Your task to perform on an android device: turn on showing notifications on the lock screen Image 0: 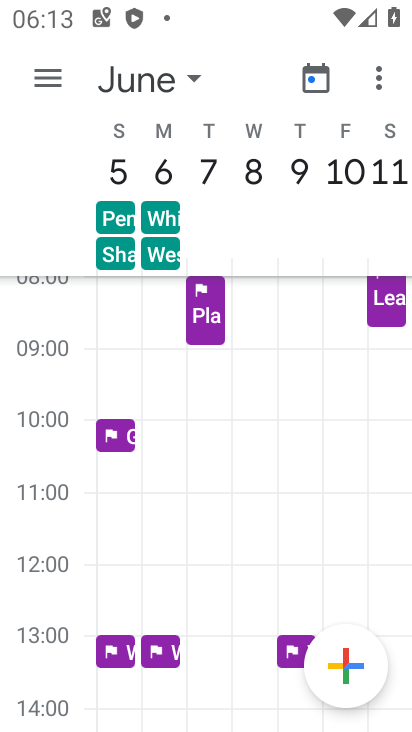
Step 0: press home button
Your task to perform on an android device: turn on showing notifications on the lock screen Image 1: 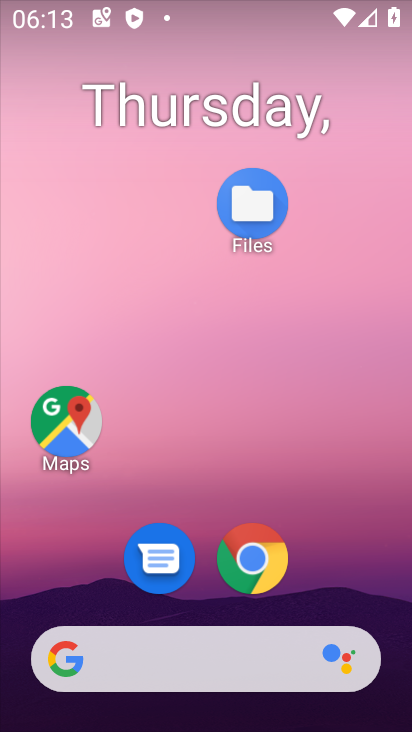
Step 1: drag from (301, 593) to (371, 108)
Your task to perform on an android device: turn on showing notifications on the lock screen Image 2: 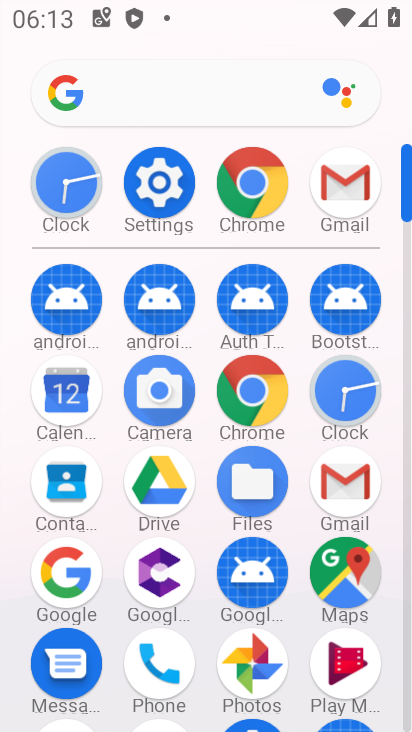
Step 2: click (146, 203)
Your task to perform on an android device: turn on showing notifications on the lock screen Image 3: 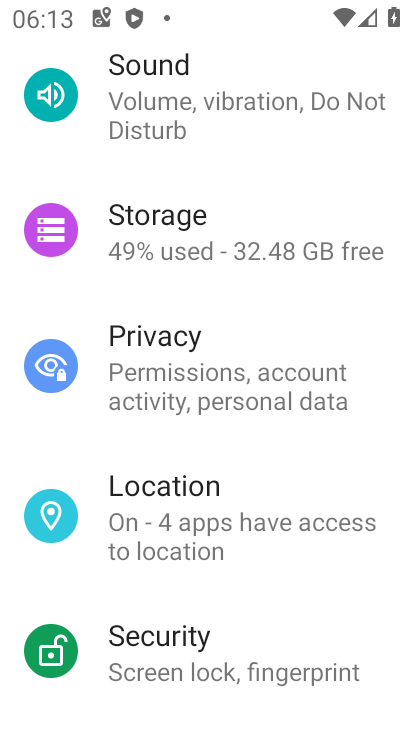
Step 3: drag from (244, 596) to (264, 294)
Your task to perform on an android device: turn on showing notifications on the lock screen Image 4: 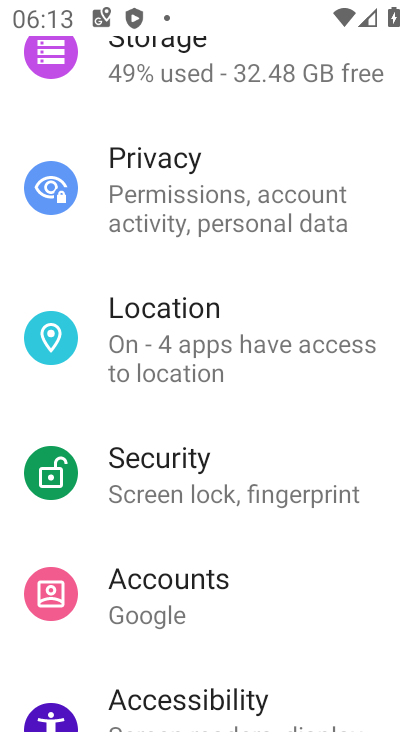
Step 4: drag from (239, 450) to (246, 255)
Your task to perform on an android device: turn on showing notifications on the lock screen Image 5: 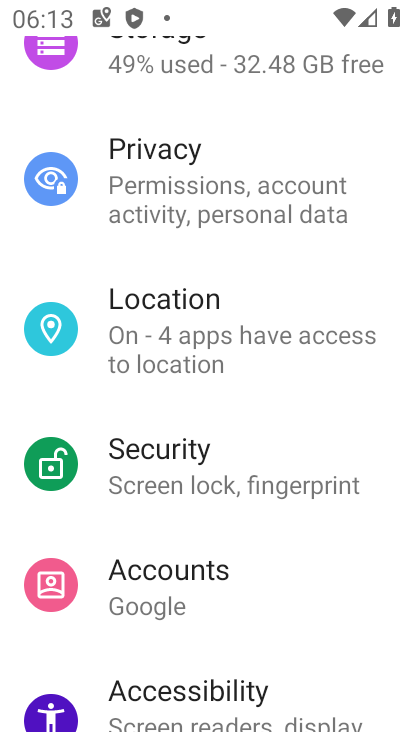
Step 5: drag from (305, 259) to (305, 715)
Your task to perform on an android device: turn on showing notifications on the lock screen Image 6: 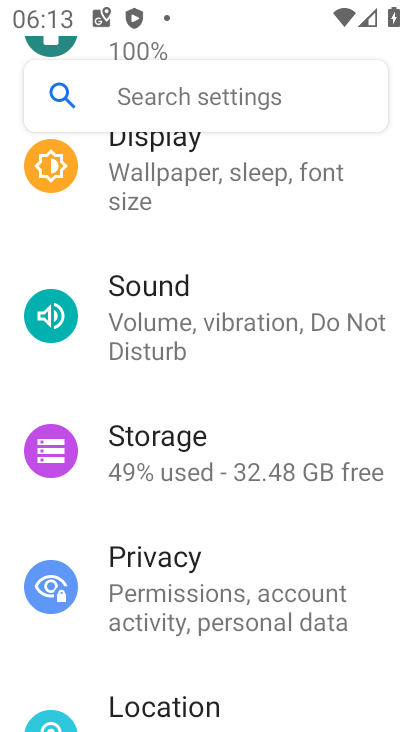
Step 6: drag from (280, 393) to (251, 693)
Your task to perform on an android device: turn on showing notifications on the lock screen Image 7: 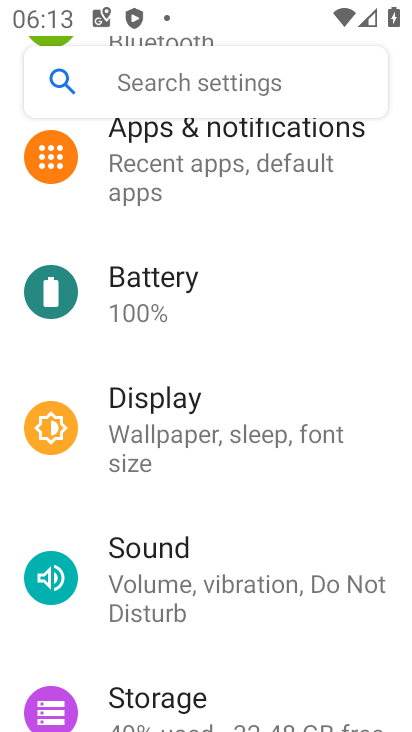
Step 7: drag from (281, 314) to (281, 647)
Your task to perform on an android device: turn on showing notifications on the lock screen Image 8: 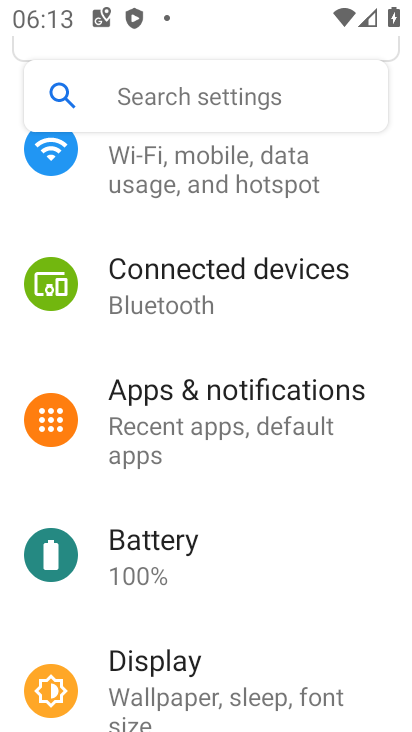
Step 8: click (200, 433)
Your task to perform on an android device: turn on showing notifications on the lock screen Image 9: 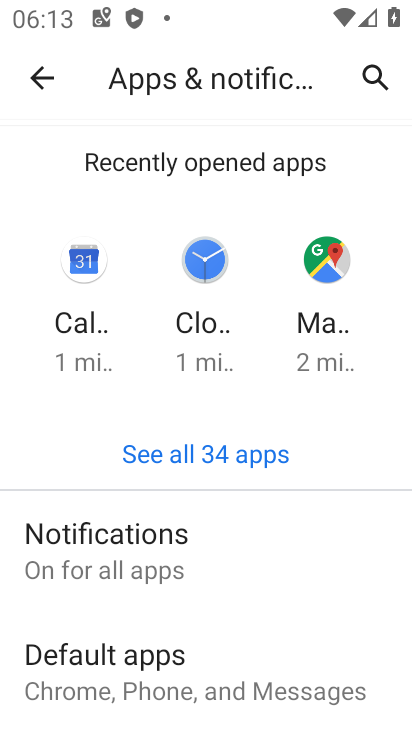
Step 9: click (167, 565)
Your task to perform on an android device: turn on showing notifications on the lock screen Image 10: 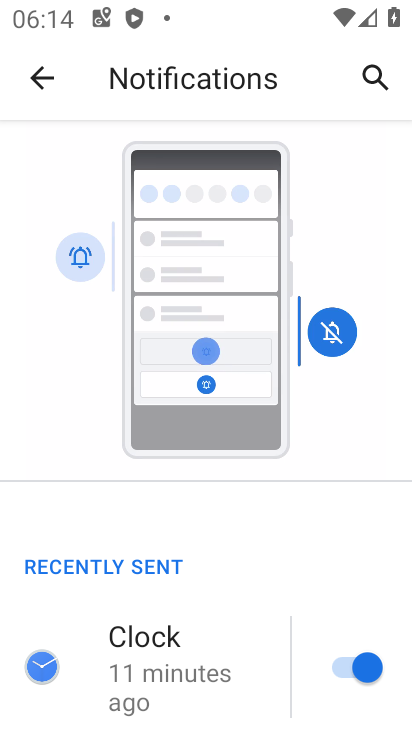
Step 10: drag from (224, 631) to (265, 311)
Your task to perform on an android device: turn on showing notifications on the lock screen Image 11: 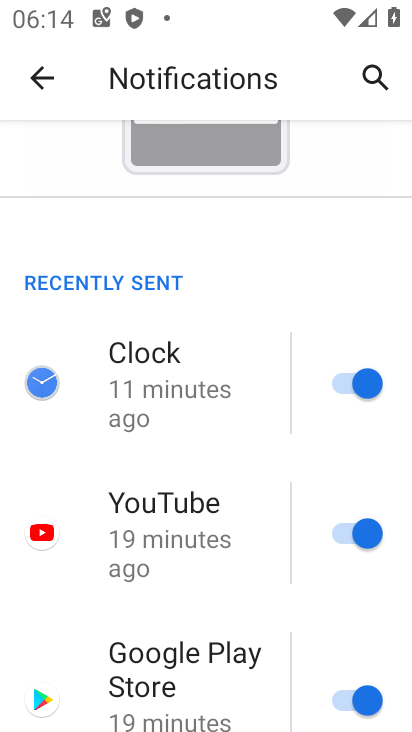
Step 11: drag from (237, 637) to (249, 214)
Your task to perform on an android device: turn on showing notifications on the lock screen Image 12: 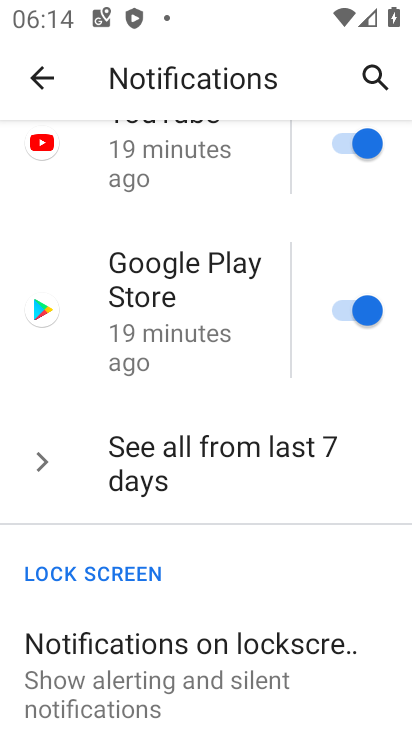
Step 12: drag from (202, 622) to (241, 308)
Your task to perform on an android device: turn on showing notifications on the lock screen Image 13: 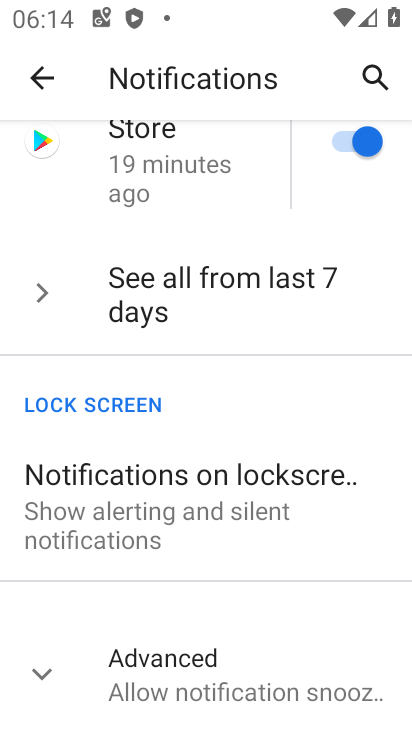
Step 13: click (149, 515)
Your task to perform on an android device: turn on showing notifications on the lock screen Image 14: 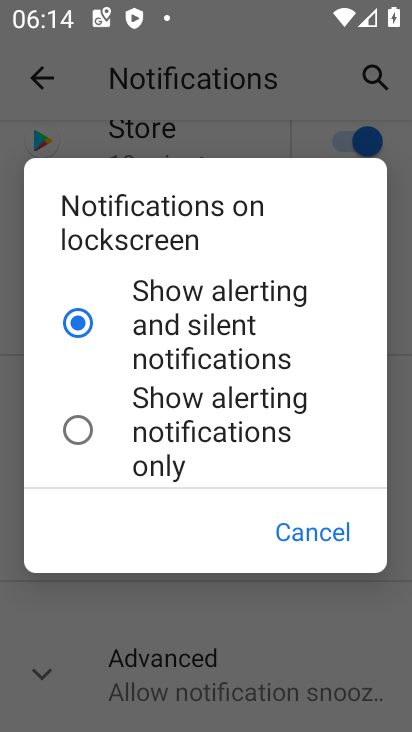
Step 14: task complete